Your task to perform on an android device: move an email to a new category in the gmail app Image 0: 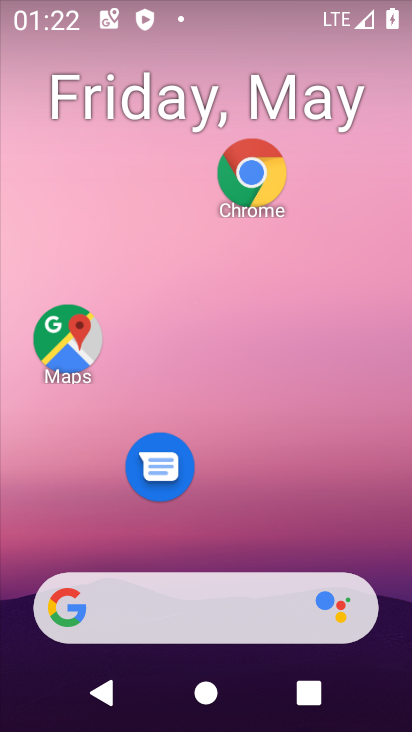
Step 0: drag from (248, 639) to (172, 188)
Your task to perform on an android device: move an email to a new category in the gmail app Image 1: 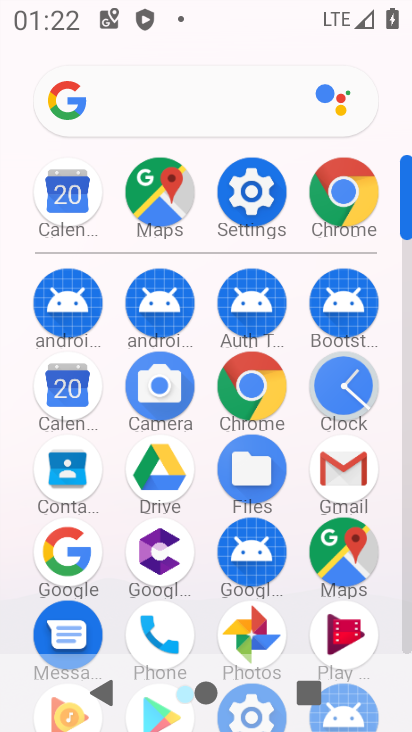
Step 1: click (329, 490)
Your task to perform on an android device: move an email to a new category in the gmail app Image 2: 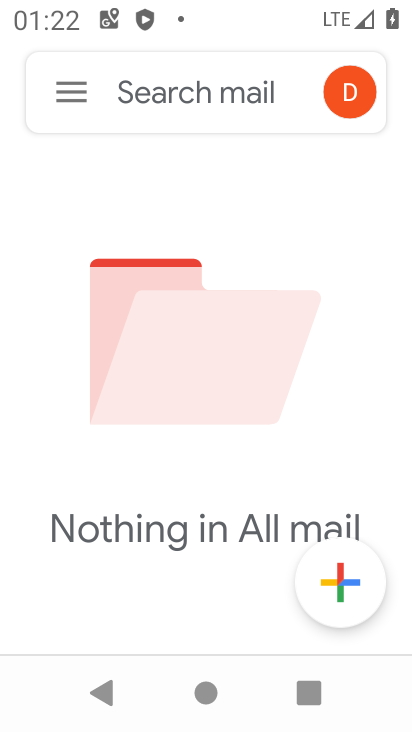
Step 2: click (65, 90)
Your task to perform on an android device: move an email to a new category in the gmail app Image 3: 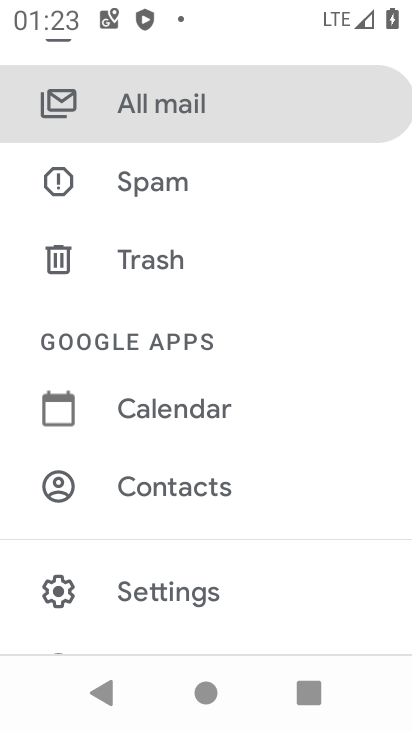
Step 3: click (201, 595)
Your task to perform on an android device: move an email to a new category in the gmail app Image 4: 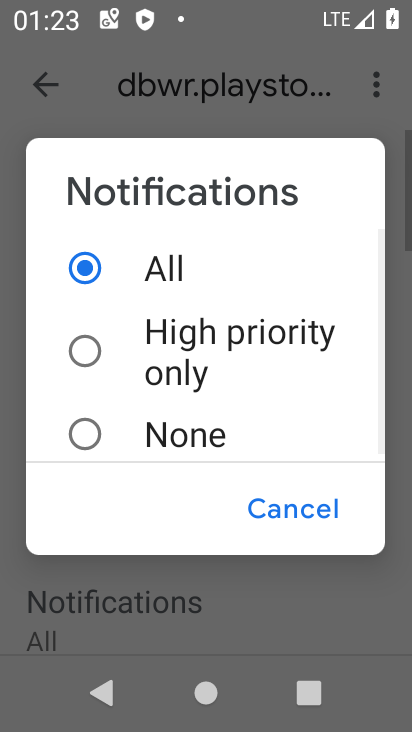
Step 4: click (262, 507)
Your task to perform on an android device: move an email to a new category in the gmail app Image 5: 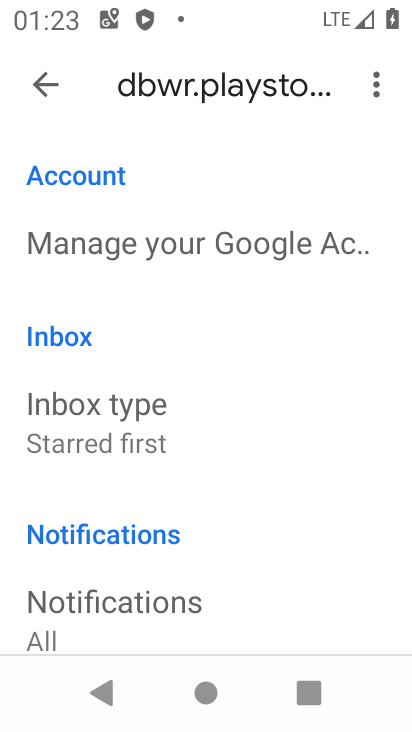
Step 5: drag from (140, 352) to (211, 615)
Your task to perform on an android device: move an email to a new category in the gmail app Image 6: 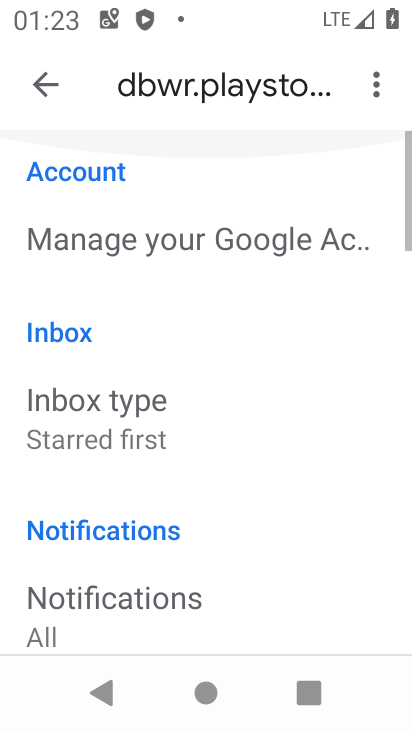
Step 6: drag from (174, 558) to (224, 362)
Your task to perform on an android device: move an email to a new category in the gmail app Image 7: 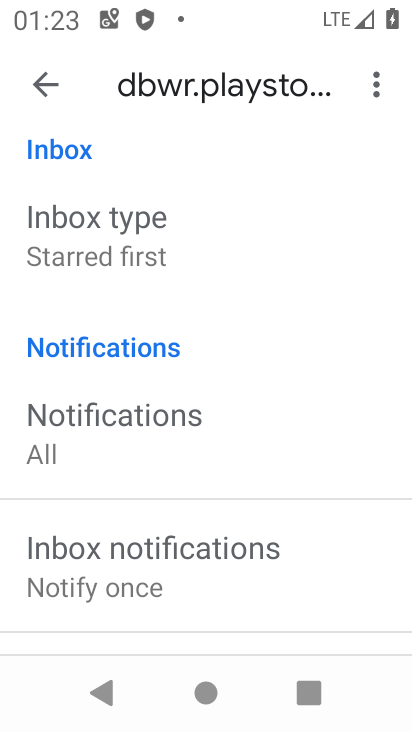
Step 7: click (137, 243)
Your task to perform on an android device: move an email to a new category in the gmail app Image 8: 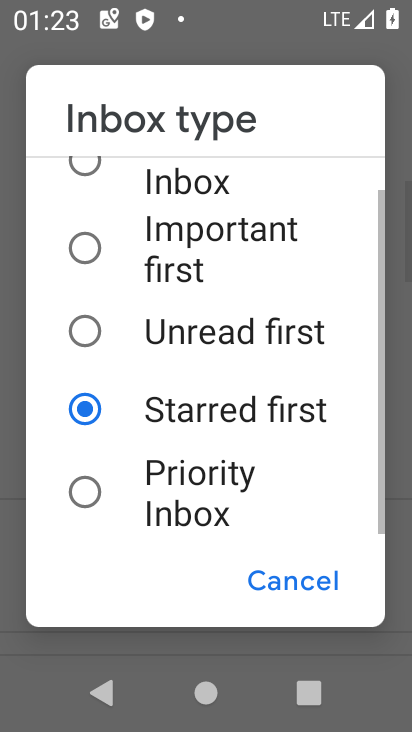
Step 8: drag from (137, 193) to (167, 482)
Your task to perform on an android device: move an email to a new category in the gmail app Image 9: 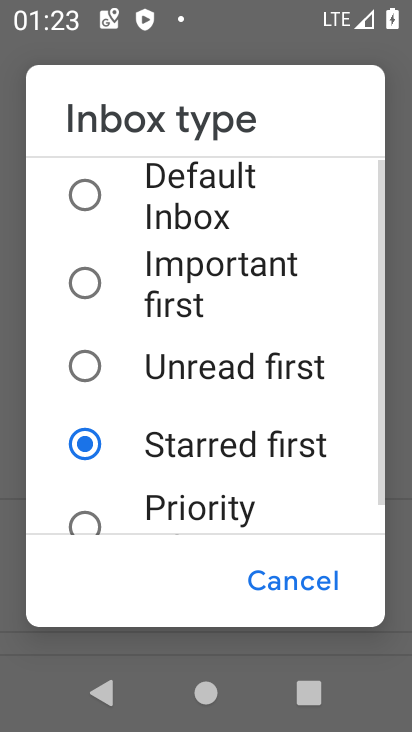
Step 9: click (193, 195)
Your task to perform on an android device: move an email to a new category in the gmail app Image 10: 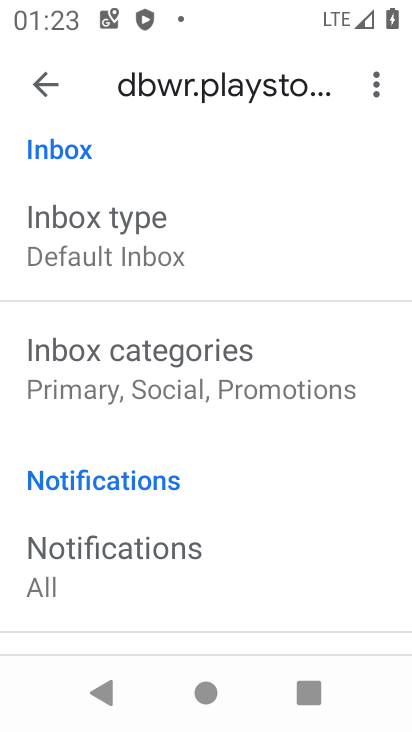
Step 10: click (140, 365)
Your task to perform on an android device: move an email to a new category in the gmail app Image 11: 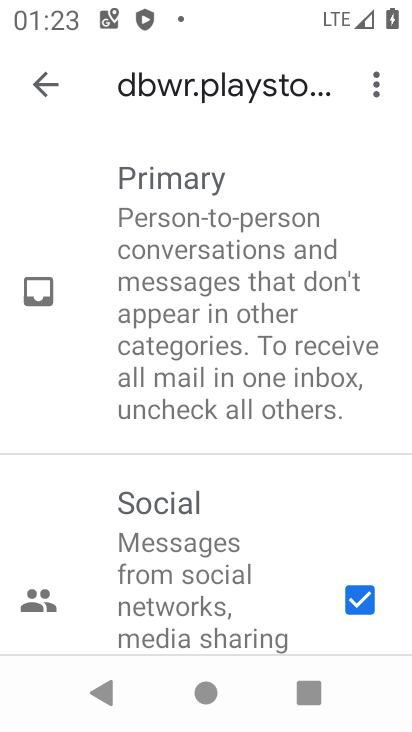
Step 11: task complete